Your task to perform on an android device: Open the calendar and show me this week's events? Image 0: 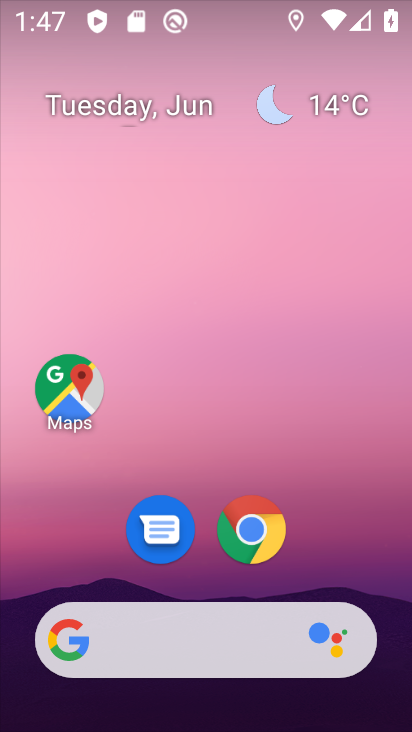
Step 0: drag from (101, 576) to (187, 149)
Your task to perform on an android device: Open the calendar and show me this week's events? Image 1: 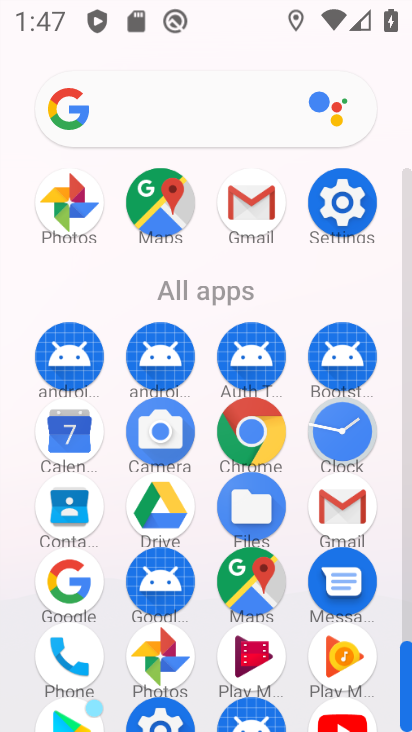
Step 1: click (60, 433)
Your task to perform on an android device: Open the calendar and show me this week's events? Image 2: 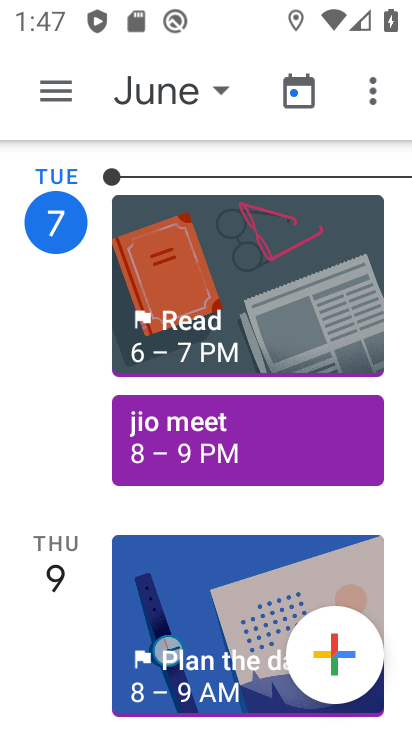
Step 2: click (58, 84)
Your task to perform on an android device: Open the calendar and show me this week's events? Image 3: 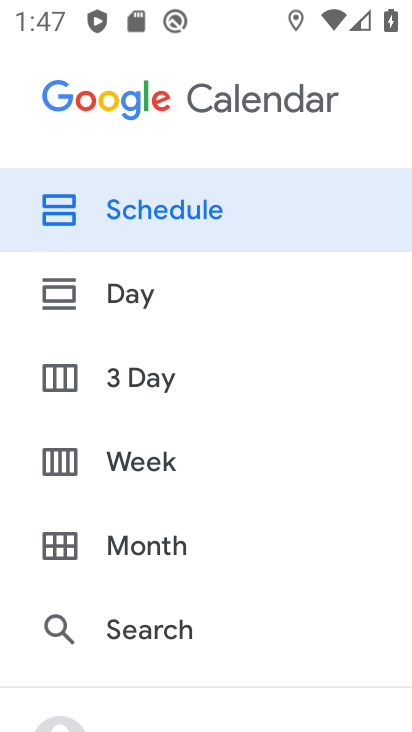
Step 3: click (130, 469)
Your task to perform on an android device: Open the calendar and show me this week's events? Image 4: 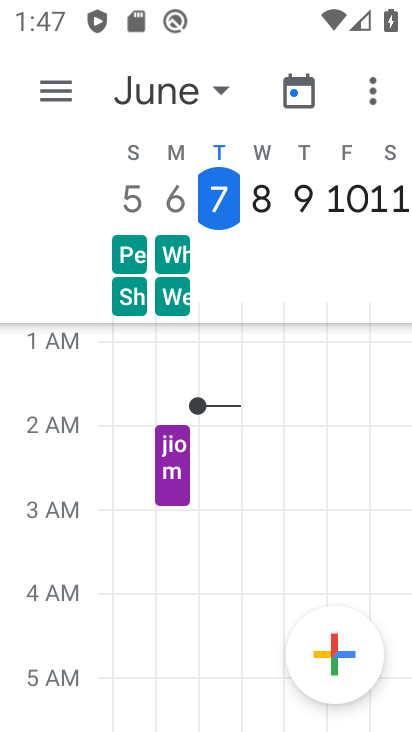
Step 4: task complete